Your task to perform on an android device: open app "PUBG MOBILE" Image 0: 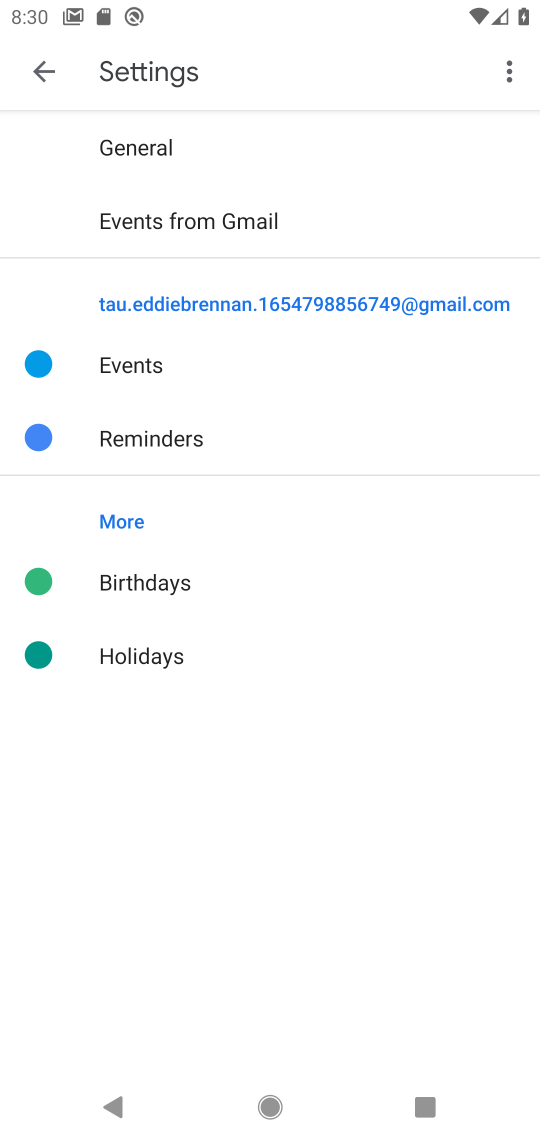
Step 0: click (42, 59)
Your task to perform on an android device: open app "PUBG MOBILE" Image 1: 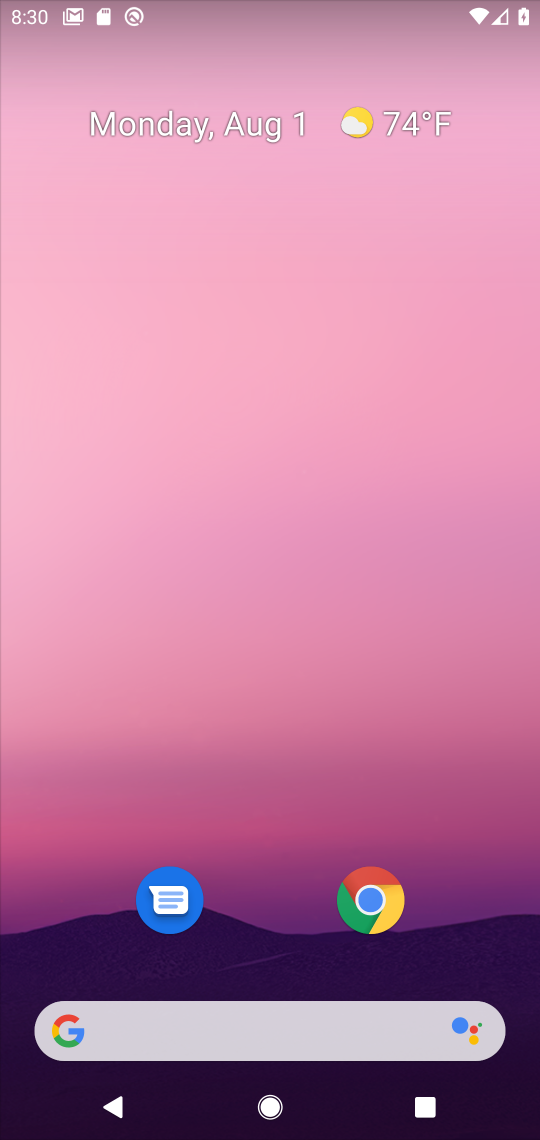
Step 1: drag from (306, 984) to (213, 284)
Your task to perform on an android device: open app "PUBG MOBILE" Image 2: 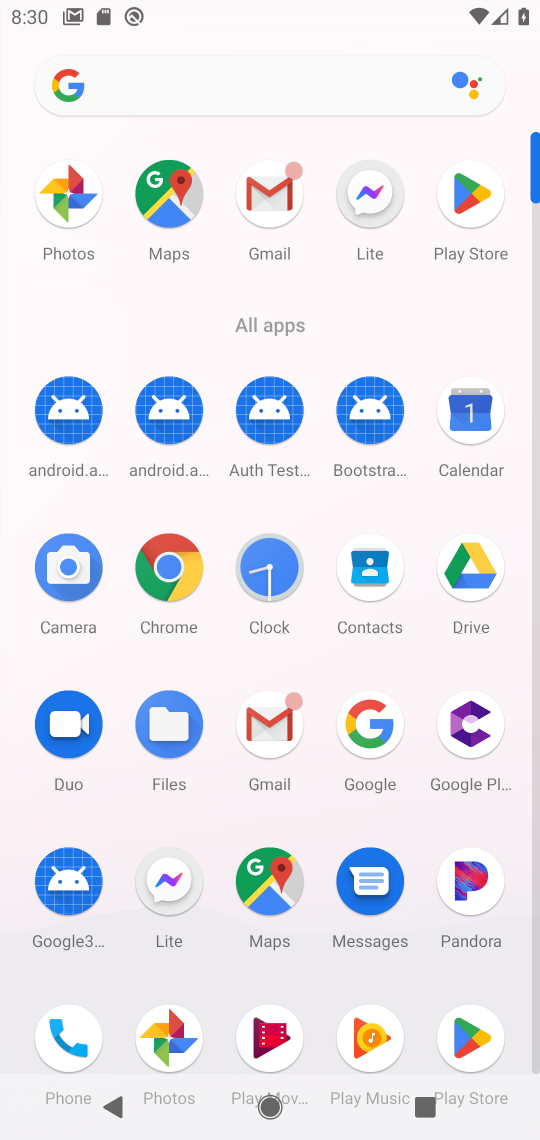
Step 2: click (473, 1024)
Your task to perform on an android device: open app "PUBG MOBILE" Image 3: 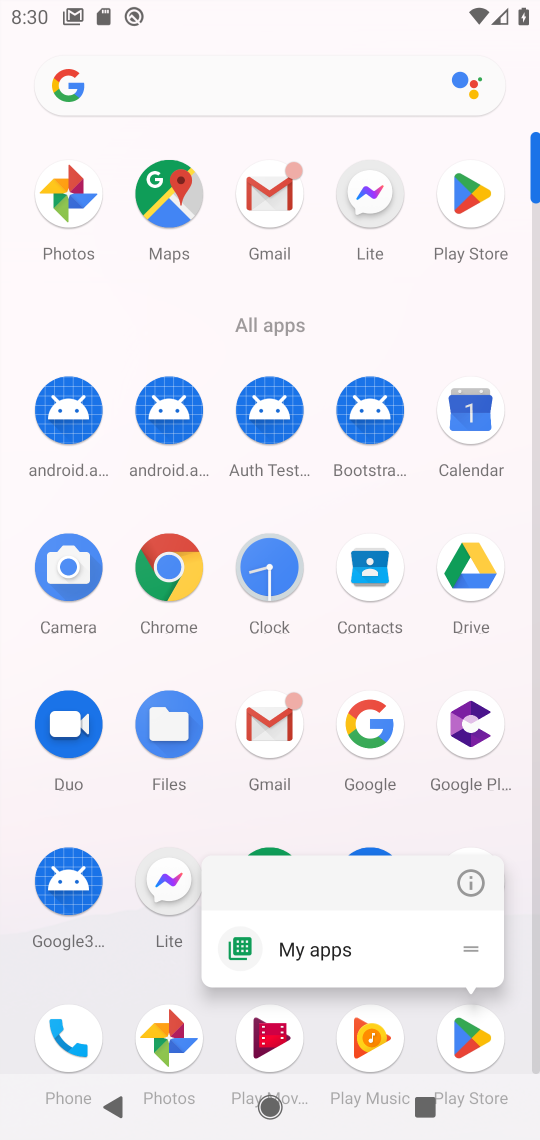
Step 3: click (468, 1051)
Your task to perform on an android device: open app "PUBG MOBILE" Image 4: 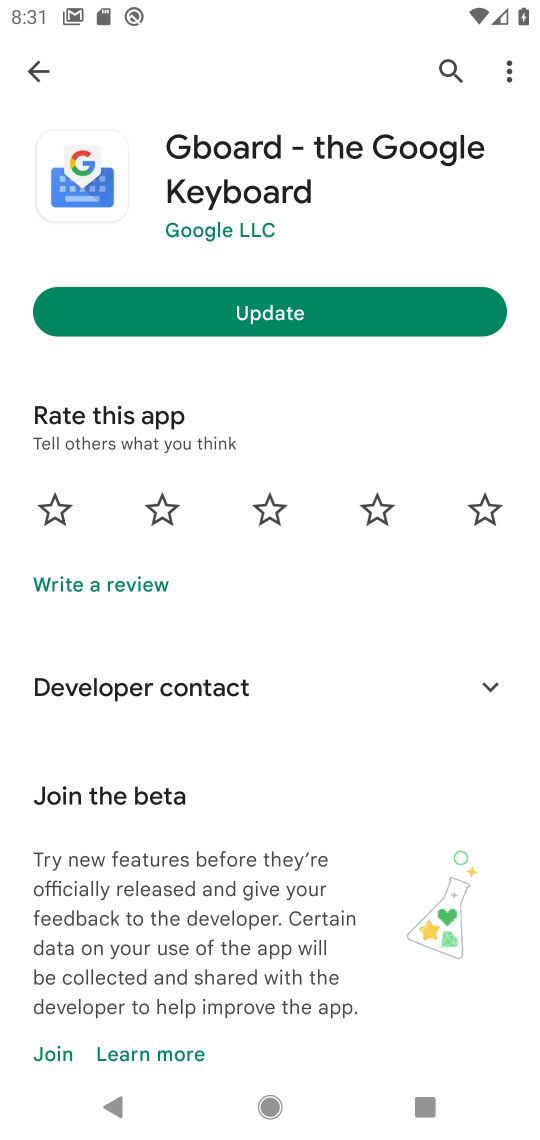
Step 4: click (29, 77)
Your task to perform on an android device: open app "PUBG MOBILE" Image 5: 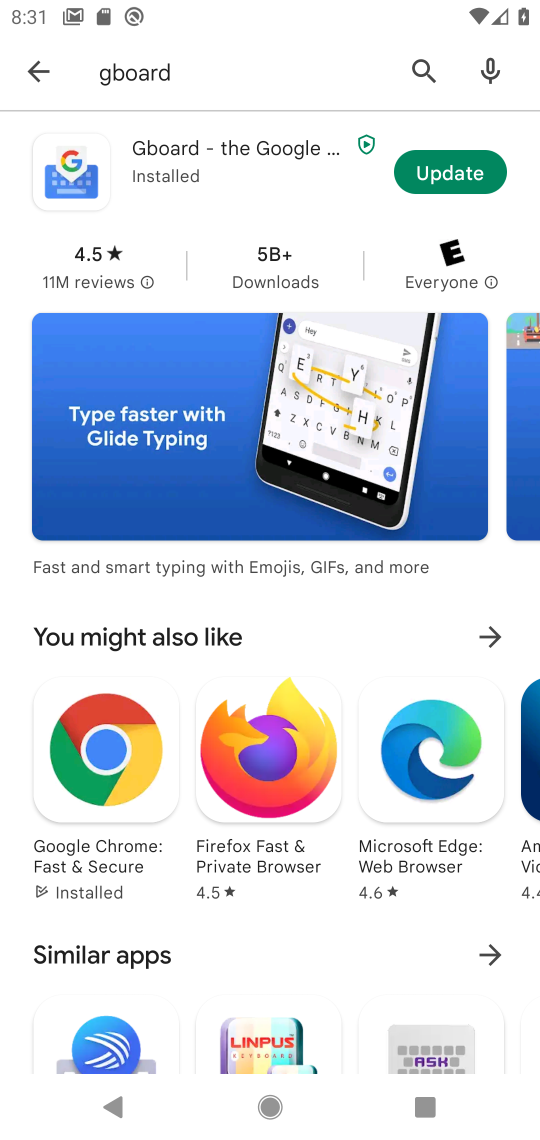
Step 5: click (28, 77)
Your task to perform on an android device: open app "PUBG MOBILE" Image 6: 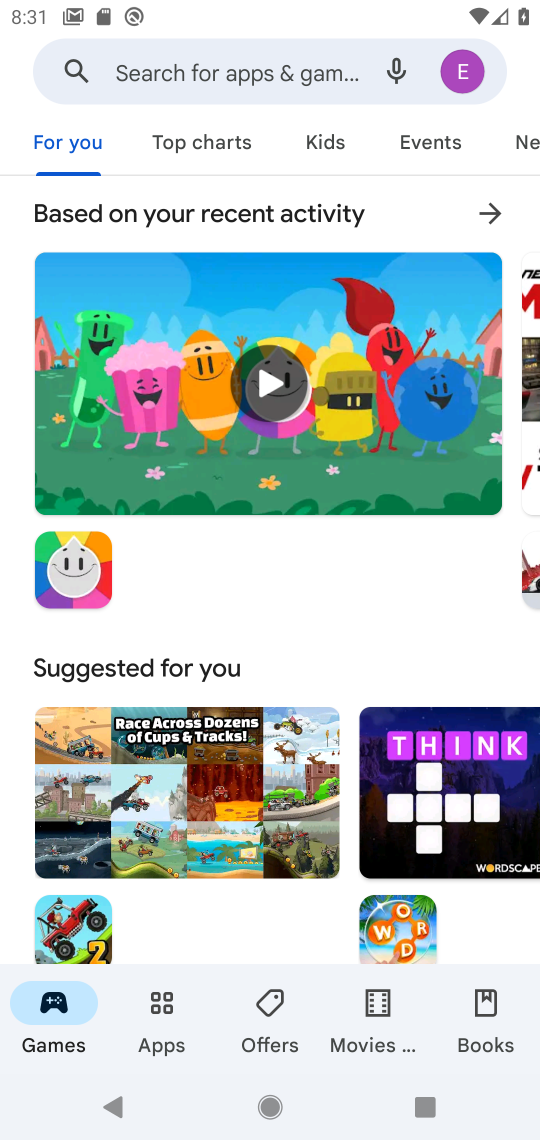
Step 6: click (175, 68)
Your task to perform on an android device: open app "PUBG MOBILE" Image 7: 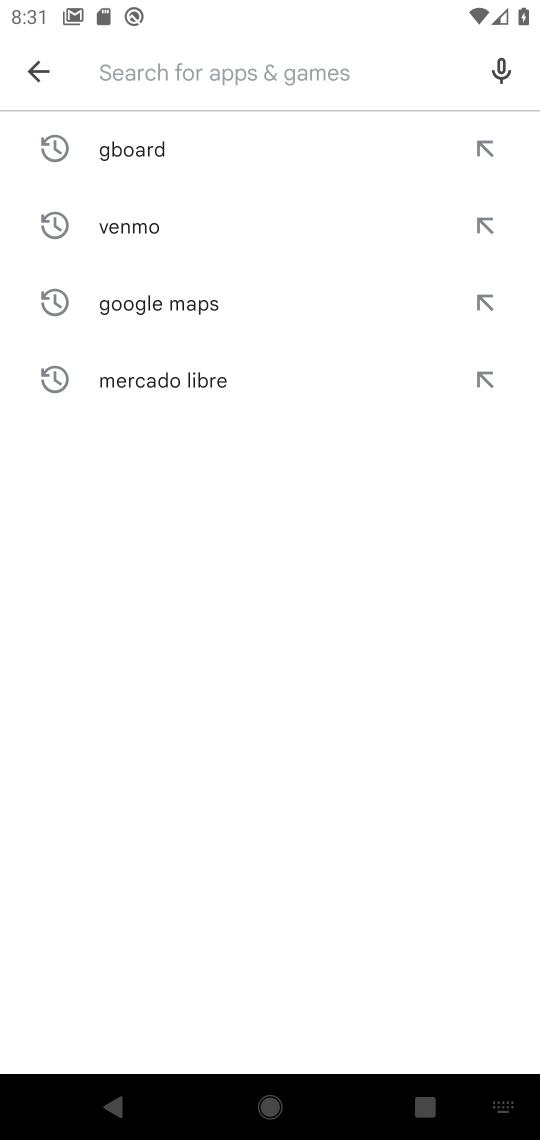
Step 7: type "PUBG MOBILE"
Your task to perform on an android device: open app "PUBG MOBILE" Image 8: 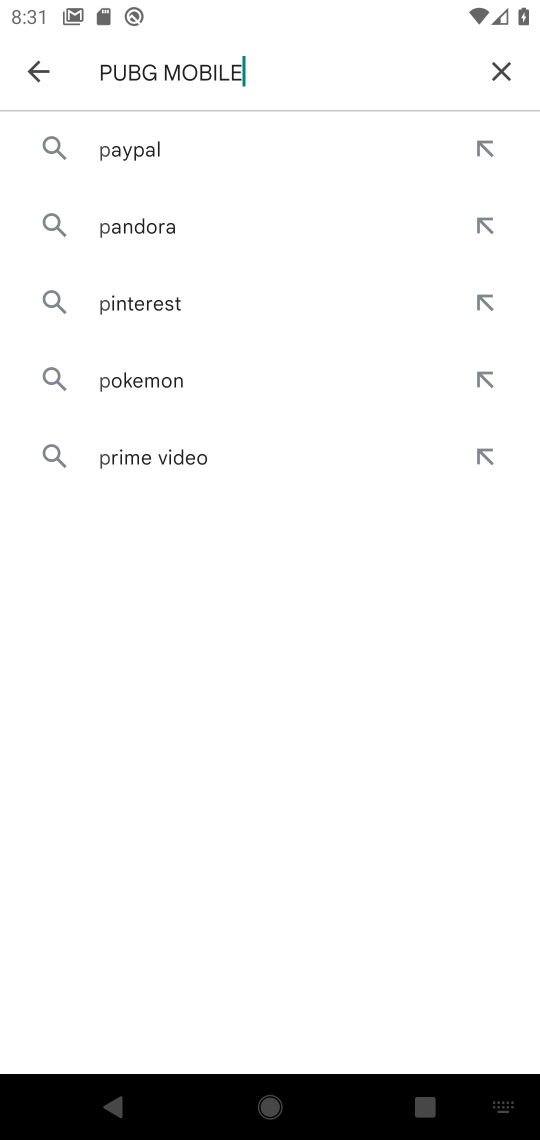
Step 8: type ""
Your task to perform on an android device: open app "PUBG MOBILE" Image 9: 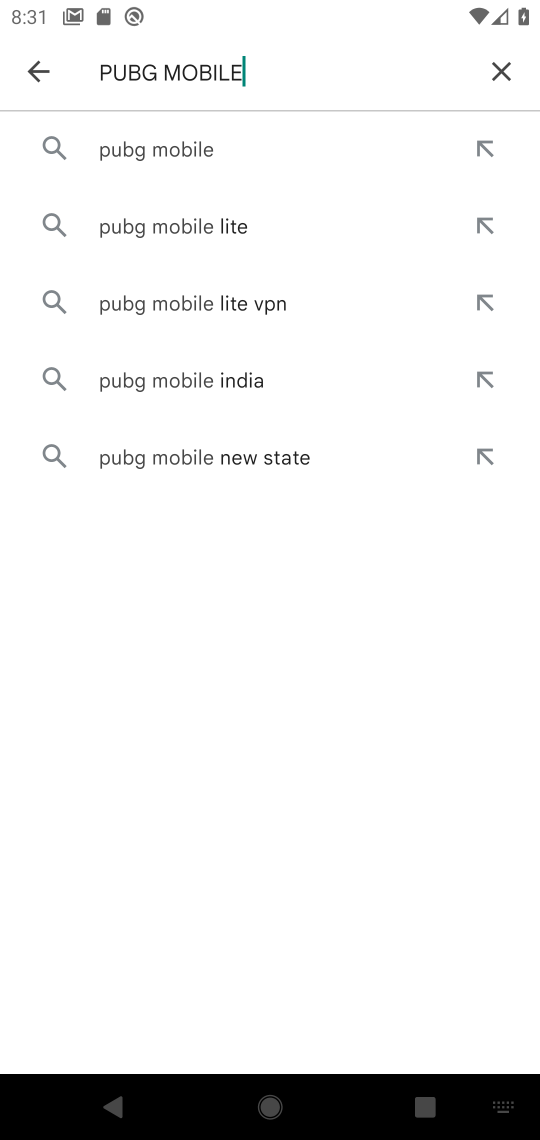
Step 9: click (117, 123)
Your task to perform on an android device: open app "PUBG MOBILE" Image 10: 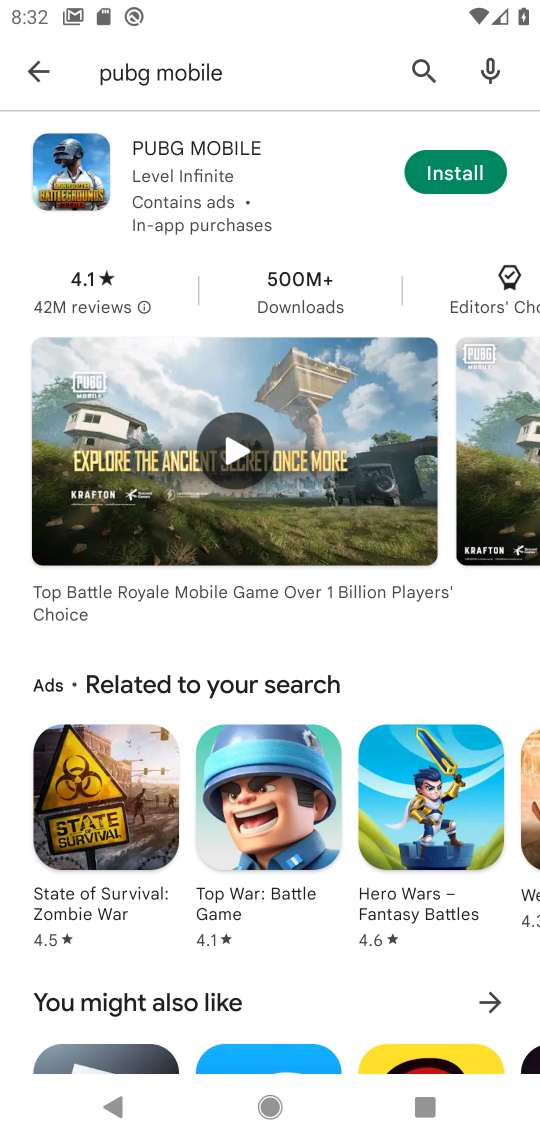
Step 10: task complete